Your task to perform on an android device: uninstall "Flipkart Online Shopping App" Image 0: 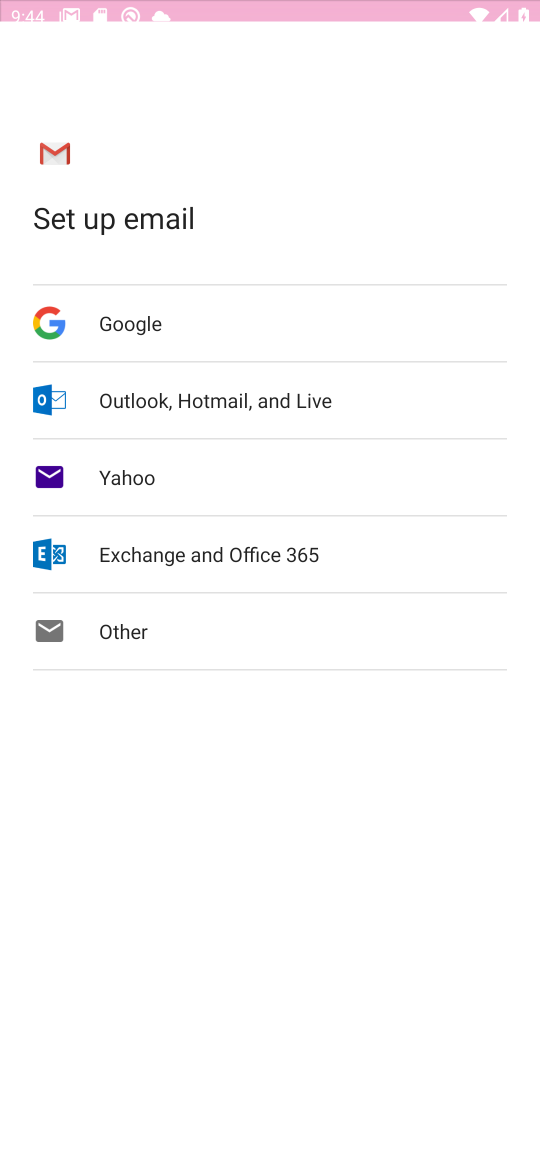
Step 0: press home button
Your task to perform on an android device: uninstall "Flipkart Online Shopping App" Image 1: 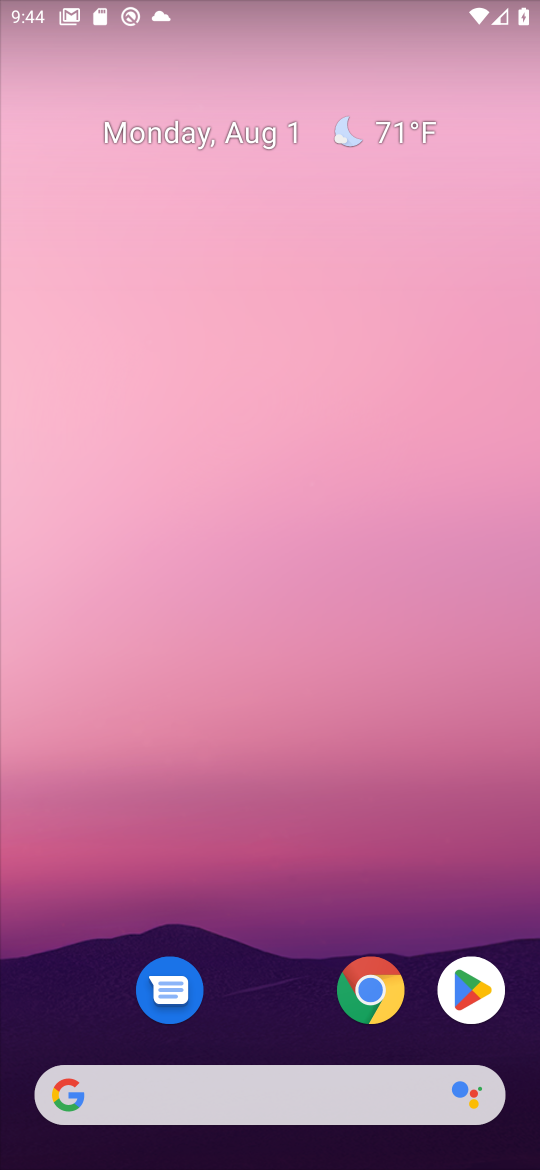
Step 1: click (485, 972)
Your task to perform on an android device: uninstall "Flipkart Online Shopping App" Image 2: 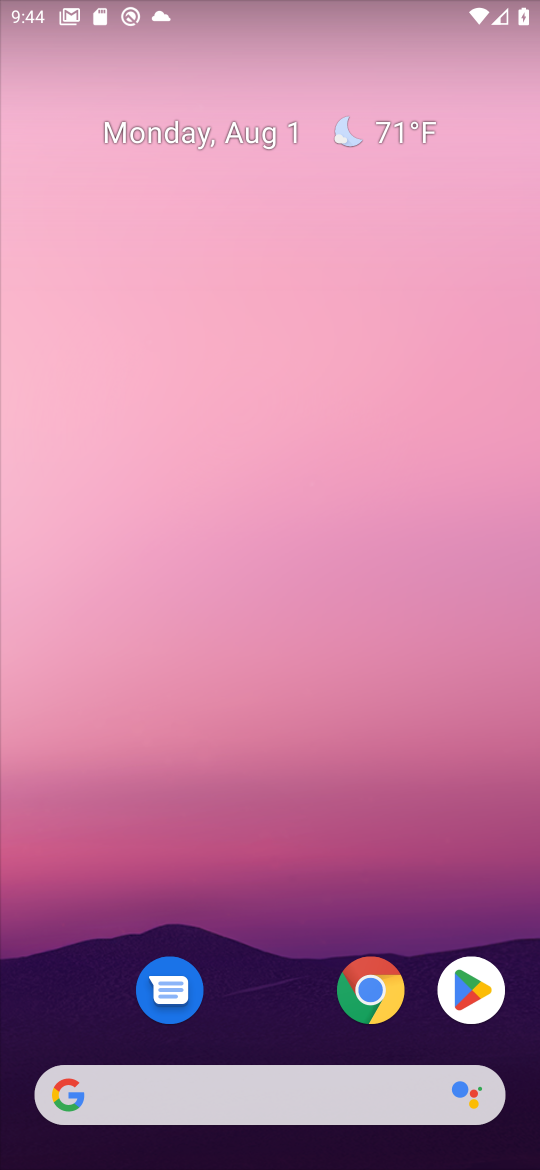
Step 2: click (459, 987)
Your task to perform on an android device: uninstall "Flipkart Online Shopping App" Image 3: 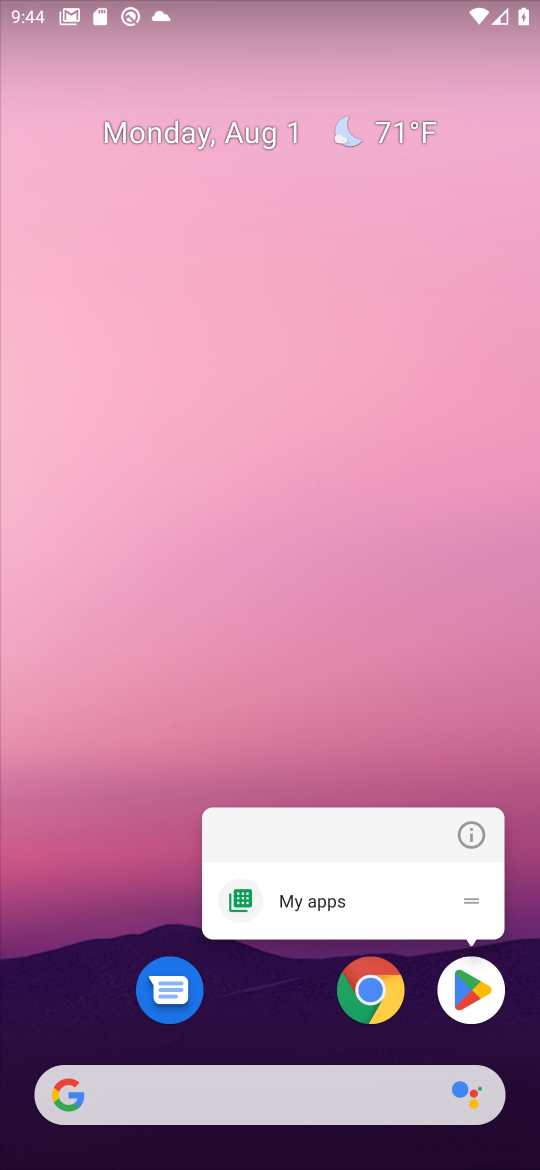
Step 3: click (459, 987)
Your task to perform on an android device: uninstall "Flipkart Online Shopping App" Image 4: 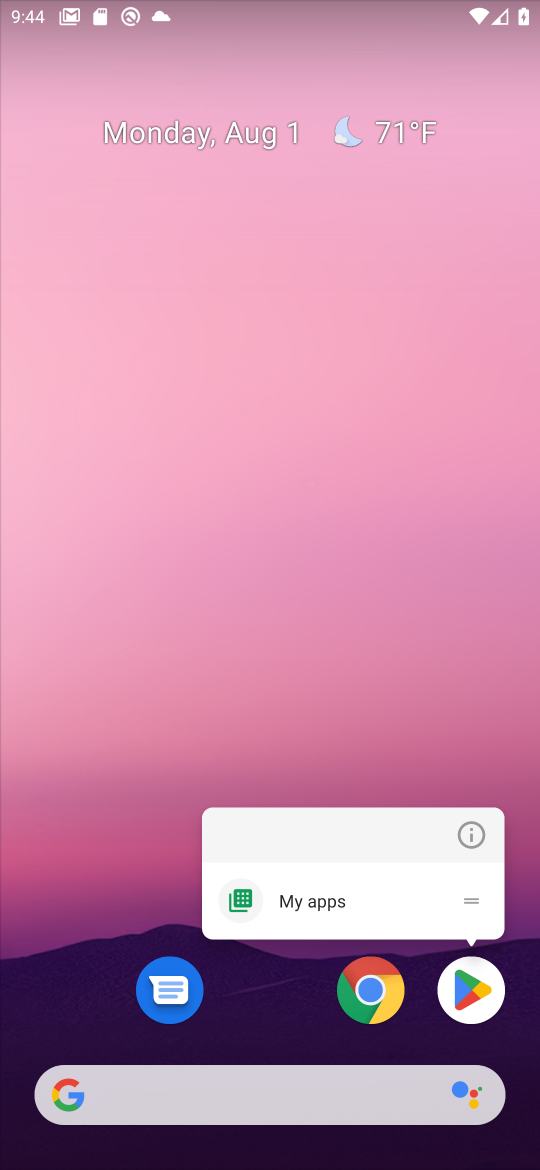
Step 4: click (487, 981)
Your task to perform on an android device: uninstall "Flipkart Online Shopping App" Image 5: 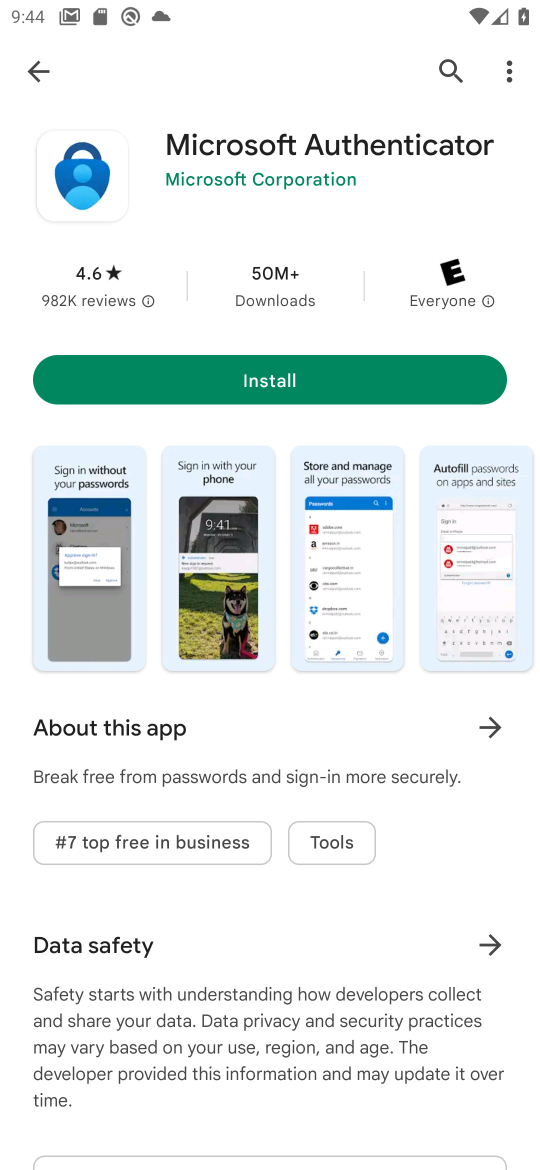
Step 5: click (440, 78)
Your task to perform on an android device: uninstall "Flipkart Online Shopping App" Image 6: 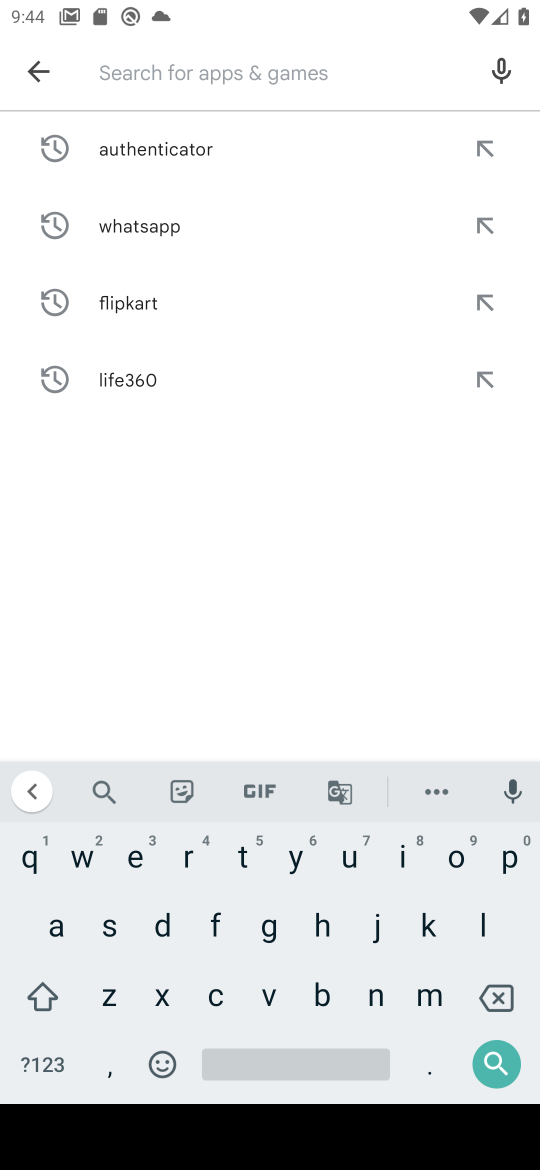
Step 6: drag from (499, 63) to (446, 68)
Your task to perform on an android device: uninstall "Flipkart Online Shopping App" Image 7: 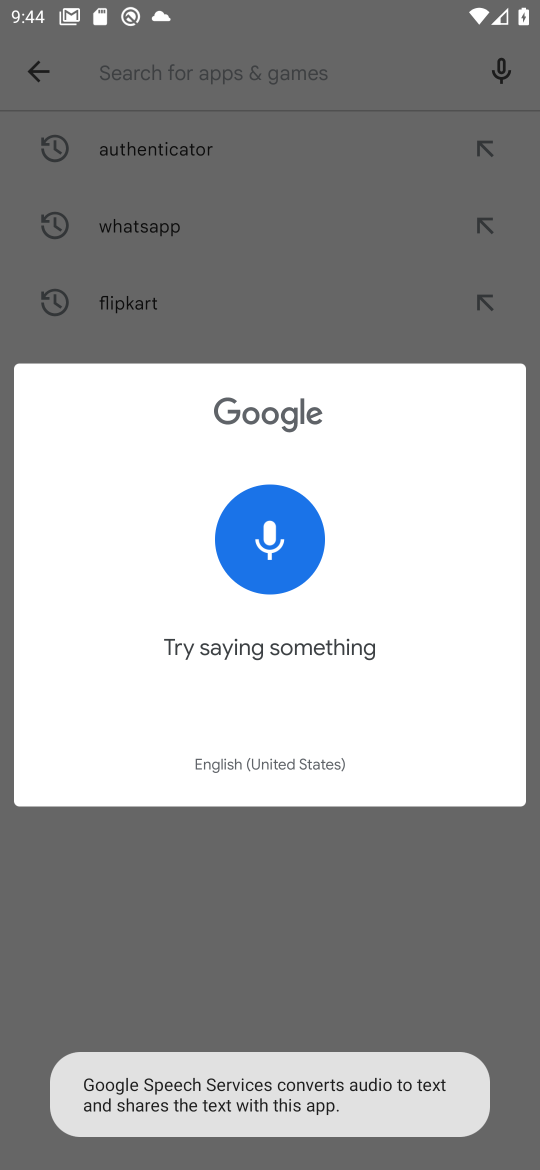
Step 7: click (272, 168)
Your task to perform on an android device: uninstall "Flipkart Online Shopping App" Image 8: 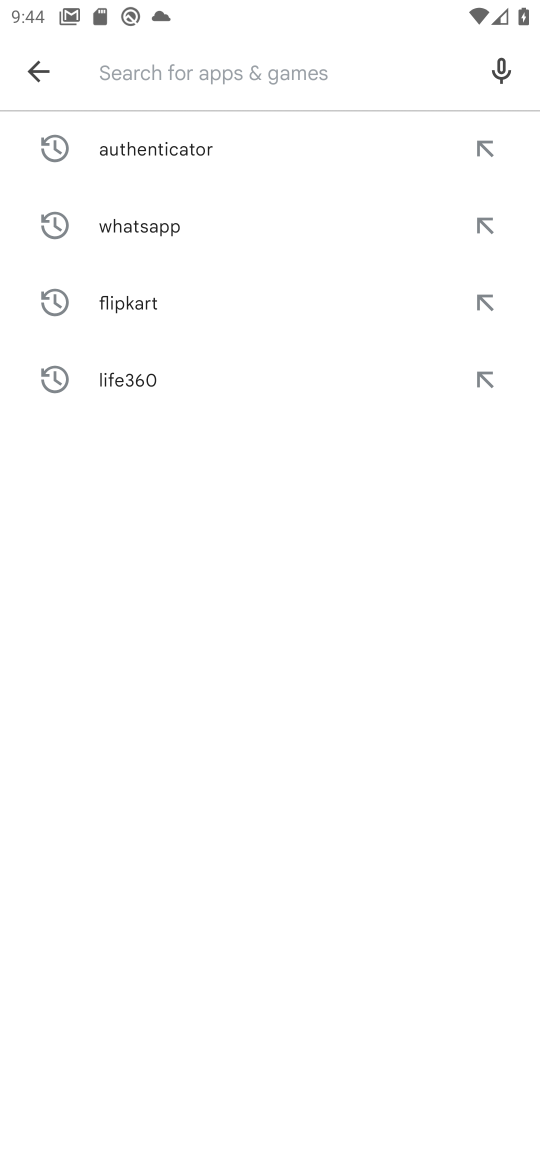
Step 8: click (198, 291)
Your task to perform on an android device: uninstall "Flipkart Online Shopping App" Image 9: 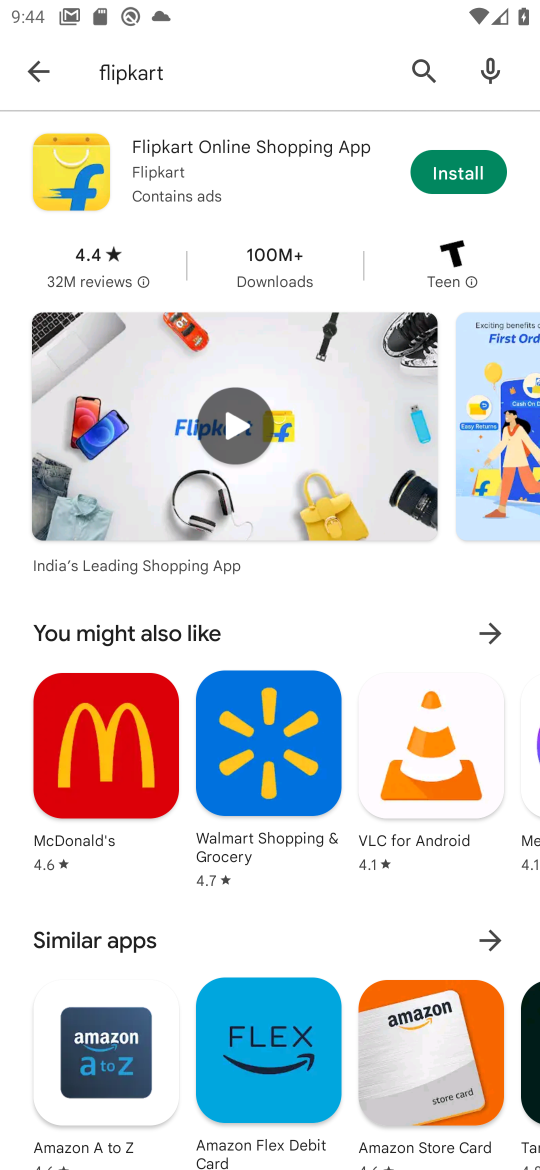
Step 9: click (105, 179)
Your task to perform on an android device: uninstall "Flipkart Online Shopping App" Image 10: 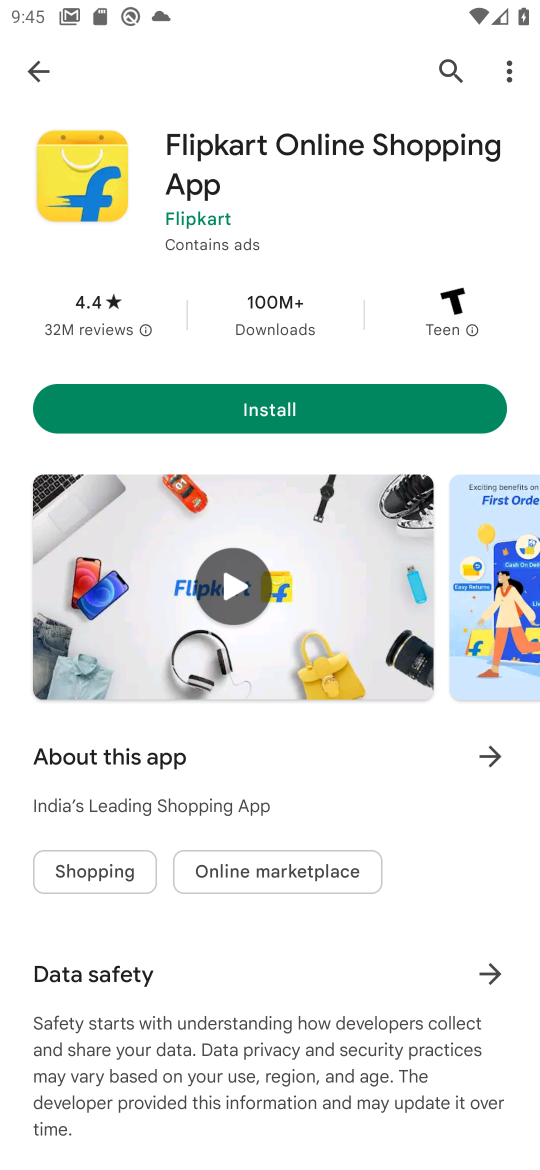
Step 10: task complete